Your task to perform on an android device: Open the calendar app, open the side menu, and click the "Day" option Image 0: 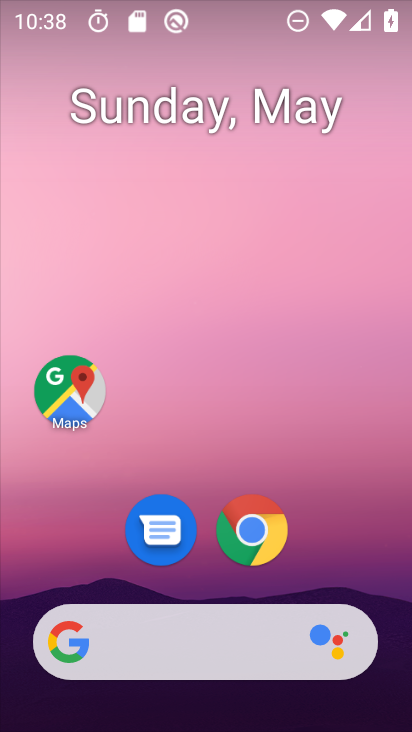
Step 0: drag from (257, 679) to (266, 97)
Your task to perform on an android device: Open the calendar app, open the side menu, and click the "Day" option Image 1: 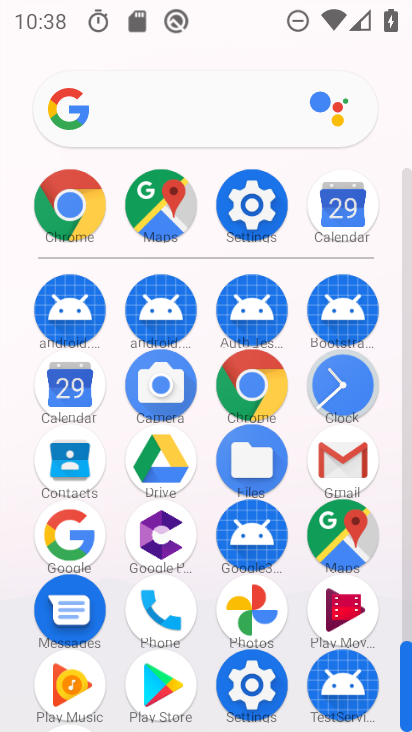
Step 1: click (67, 398)
Your task to perform on an android device: Open the calendar app, open the side menu, and click the "Day" option Image 2: 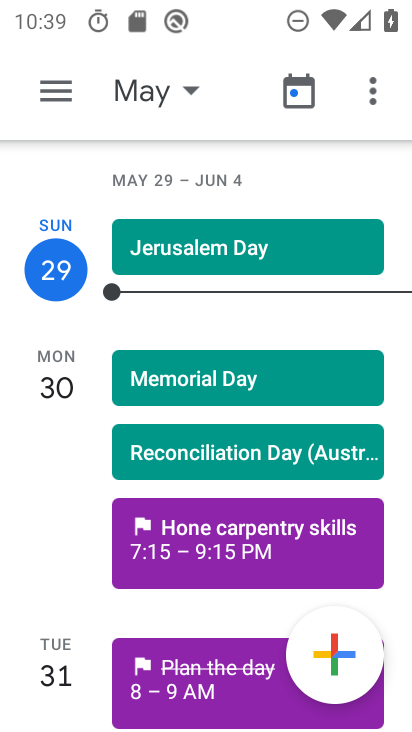
Step 2: click (44, 80)
Your task to perform on an android device: Open the calendar app, open the side menu, and click the "Day" option Image 3: 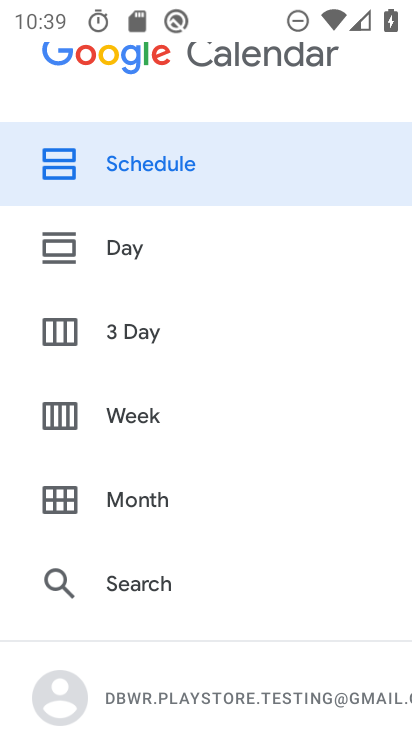
Step 3: click (132, 253)
Your task to perform on an android device: Open the calendar app, open the side menu, and click the "Day" option Image 4: 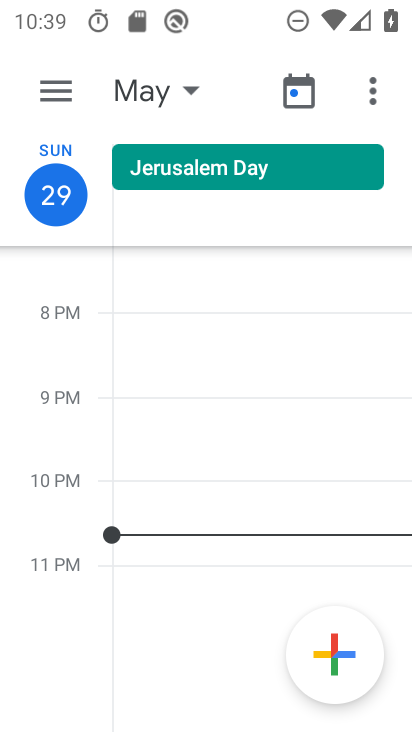
Step 4: task complete